Your task to perform on an android device: all mails in gmail Image 0: 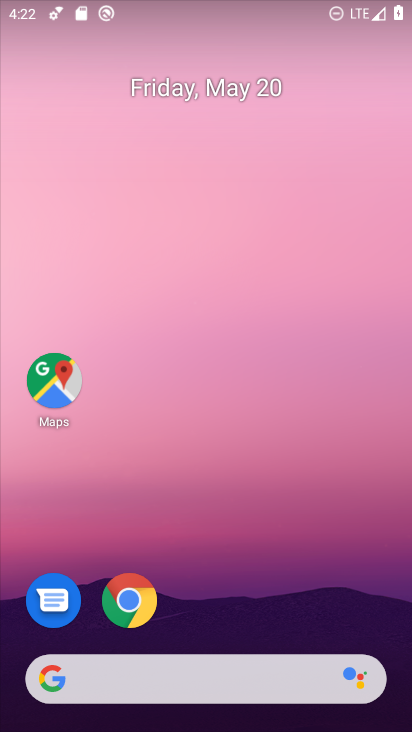
Step 0: drag from (208, 584) to (297, 80)
Your task to perform on an android device: all mails in gmail Image 1: 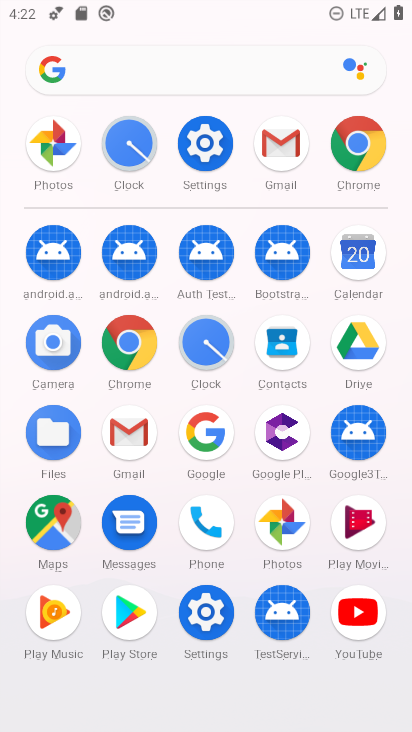
Step 1: click (276, 143)
Your task to perform on an android device: all mails in gmail Image 2: 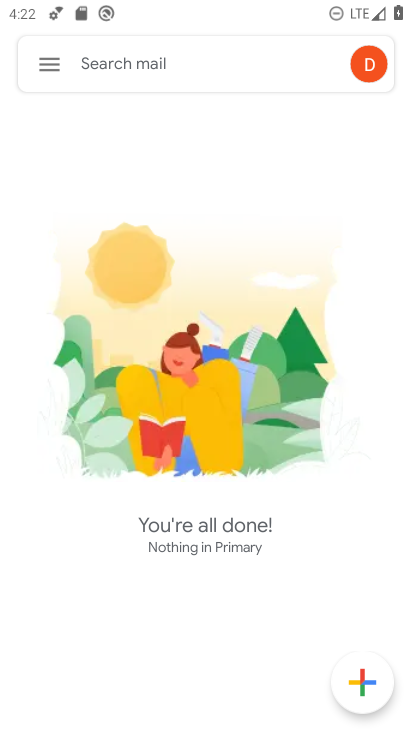
Step 2: click (47, 70)
Your task to perform on an android device: all mails in gmail Image 3: 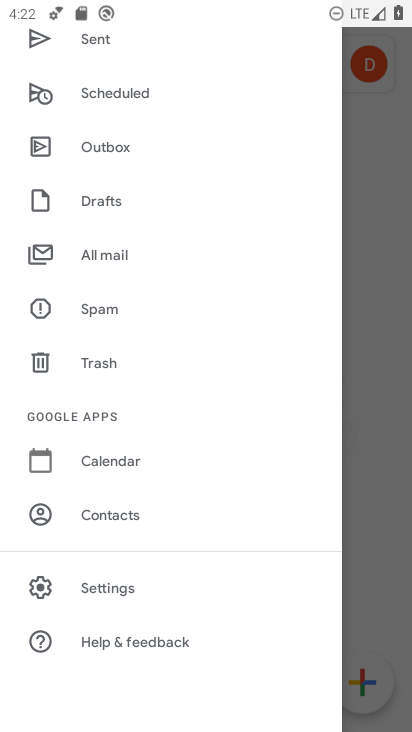
Step 3: click (119, 255)
Your task to perform on an android device: all mails in gmail Image 4: 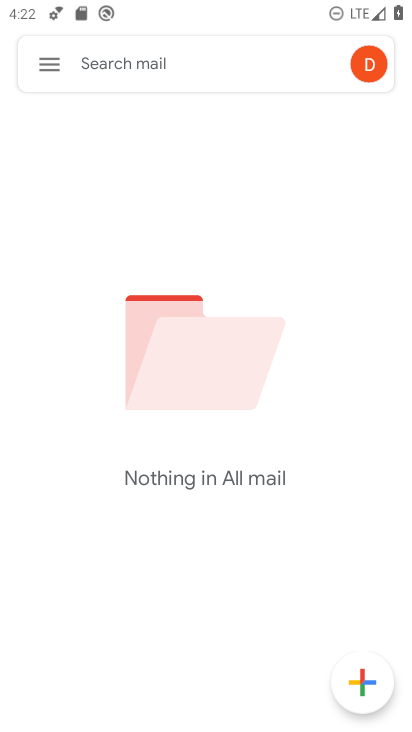
Step 4: task complete